Your task to perform on an android device: toggle show notifications on the lock screen Image 0: 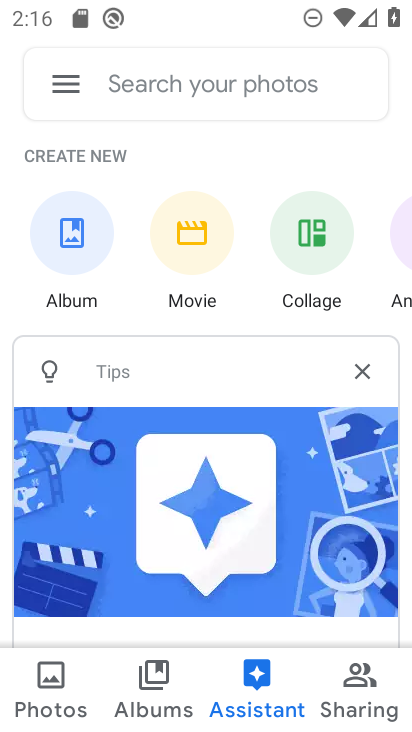
Step 0: press home button
Your task to perform on an android device: toggle show notifications on the lock screen Image 1: 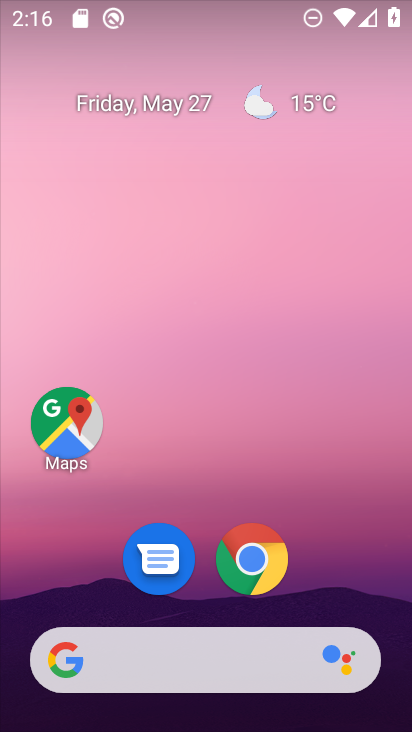
Step 1: drag from (204, 664) to (215, 164)
Your task to perform on an android device: toggle show notifications on the lock screen Image 2: 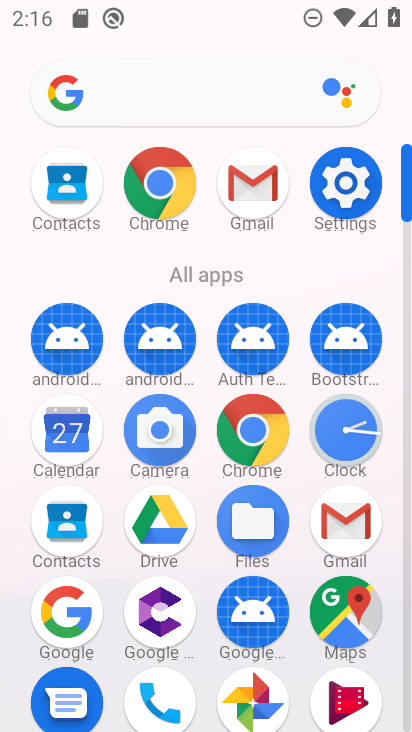
Step 2: click (341, 190)
Your task to perform on an android device: toggle show notifications on the lock screen Image 3: 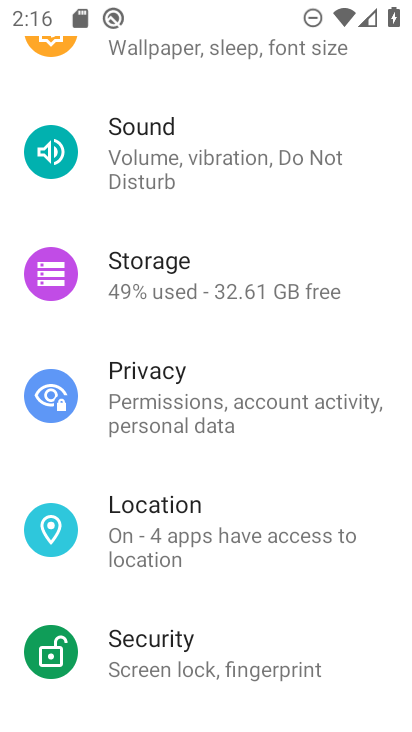
Step 3: drag from (229, 171) to (262, 719)
Your task to perform on an android device: toggle show notifications on the lock screen Image 4: 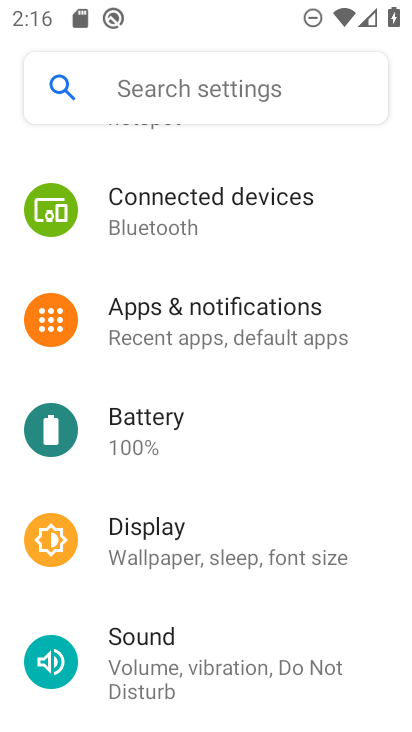
Step 4: click (236, 309)
Your task to perform on an android device: toggle show notifications on the lock screen Image 5: 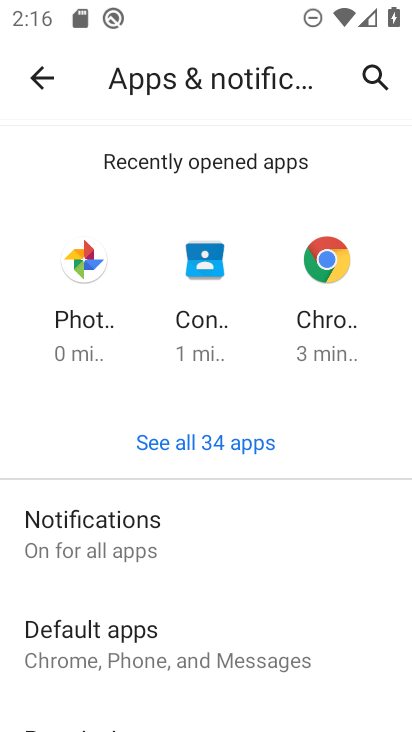
Step 5: drag from (244, 647) to (224, 170)
Your task to perform on an android device: toggle show notifications on the lock screen Image 6: 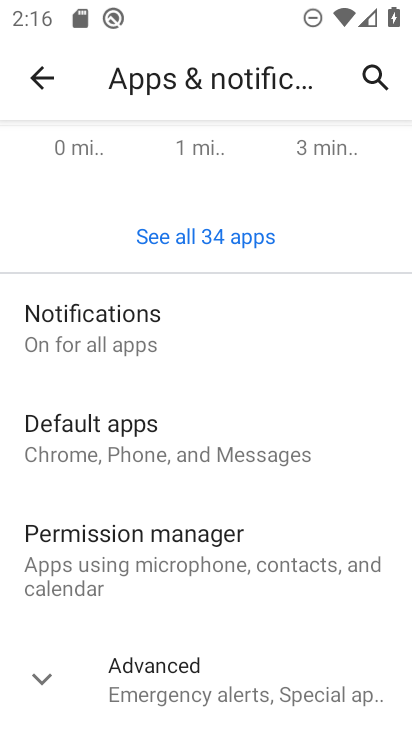
Step 6: click (214, 691)
Your task to perform on an android device: toggle show notifications on the lock screen Image 7: 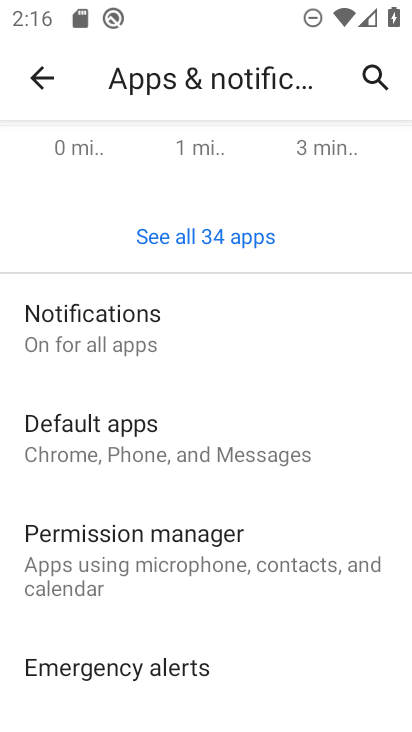
Step 7: click (157, 329)
Your task to perform on an android device: toggle show notifications on the lock screen Image 8: 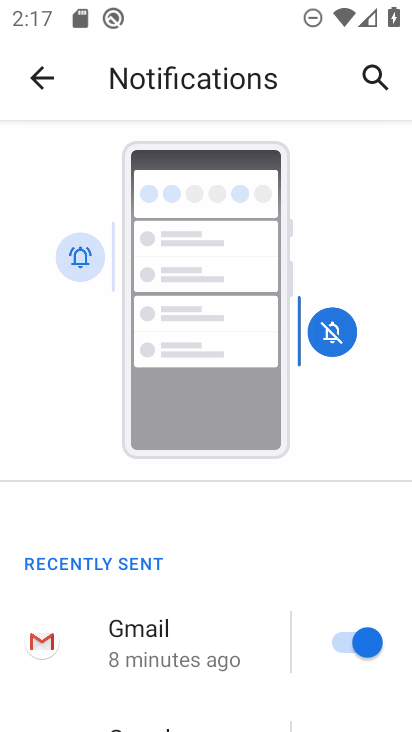
Step 8: drag from (200, 664) to (199, 203)
Your task to perform on an android device: toggle show notifications on the lock screen Image 9: 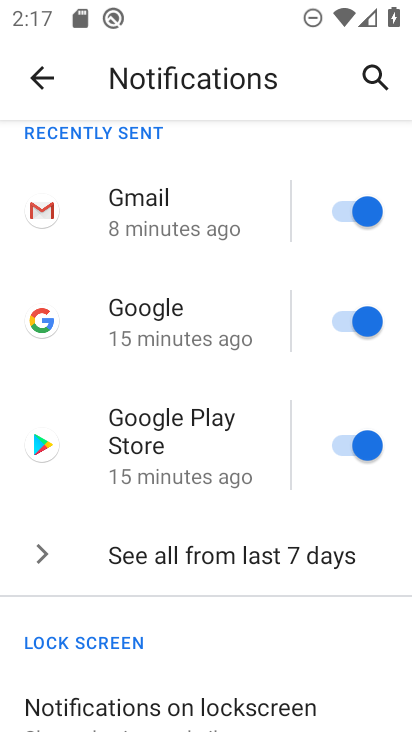
Step 9: drag from (245, 661) to (222, 224)
Your task to perform on an android device: toggle show notifications on the lock screen Image 10: 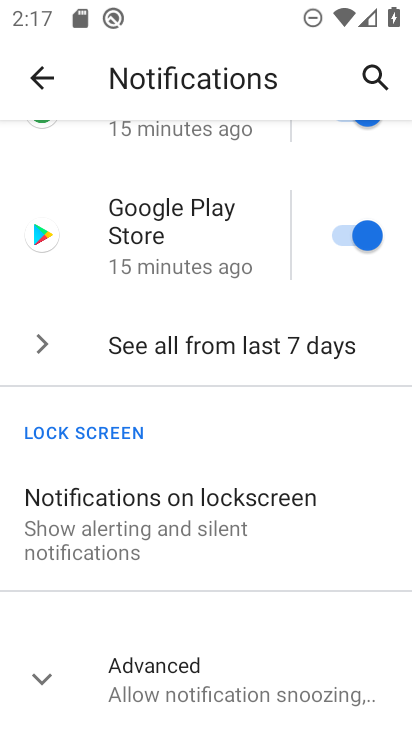
Step 10: click (190, 679)
Your task to perform on an android device: toggle show notifications on the lock screen Image 11: 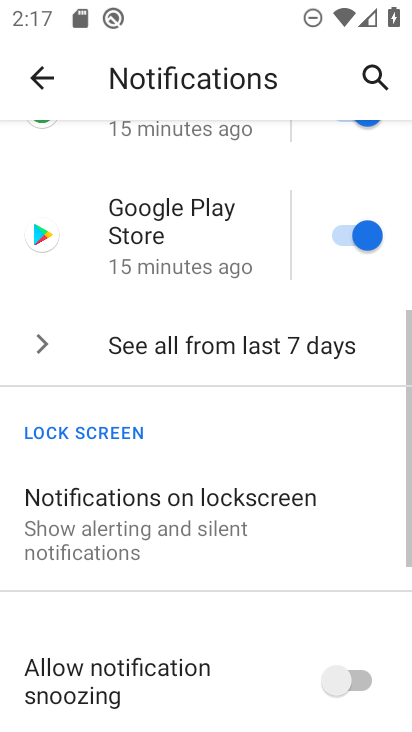
Step 11: drag from (268, 674) to (257, 330)
Your task to perform on an android device: toggle show notifications on the lock screen Image 12: 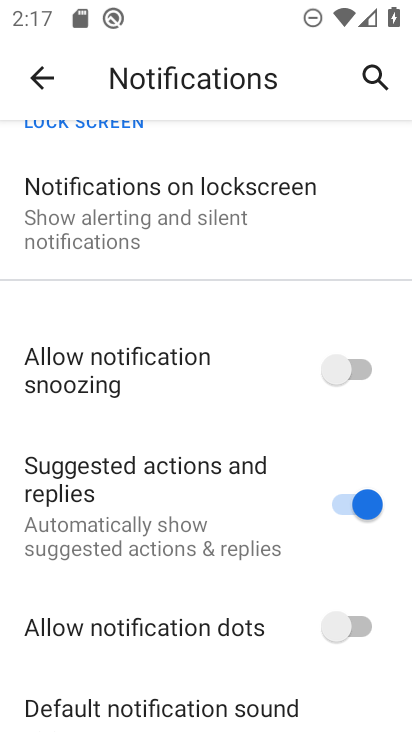
Step 12: click (201, 229)
Your task to perform on an android device: toggle show notifications on the lock screen Image 13: 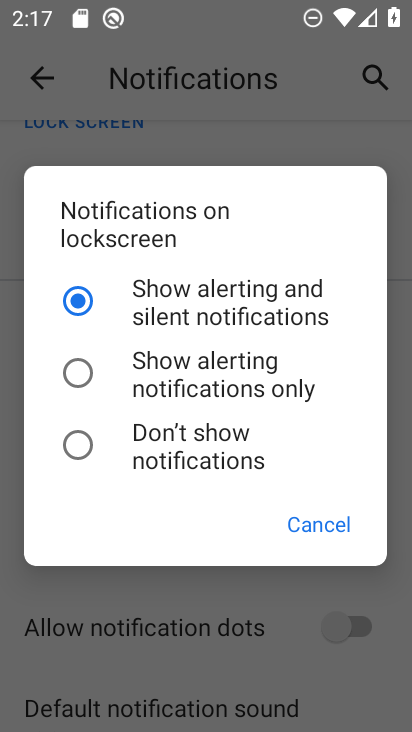
Step 13: click (72, 372)
Your task to perform on an android device: toggle show notifications on the lock screen Image 14: 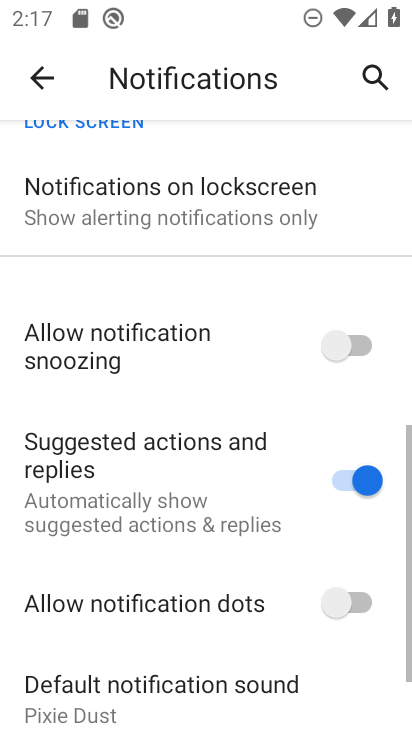
Step 14: task complete